Your task to perform on an android device: Go to privacy settings Image 0: 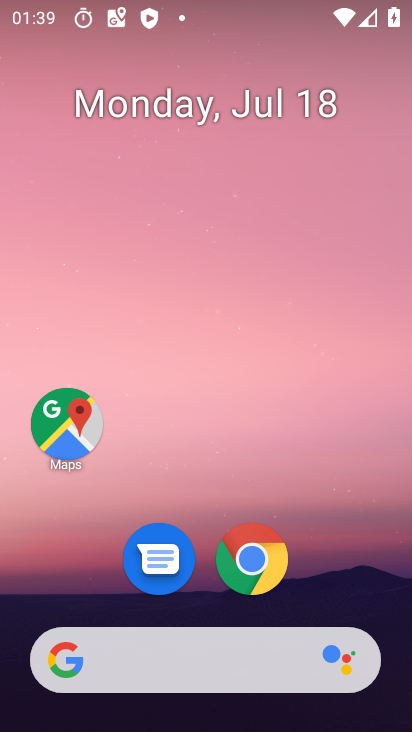
Step 0: drag from (83, 513) to (138, 43)
Your task to perform on an android device: Go to privacy settings Image 1: 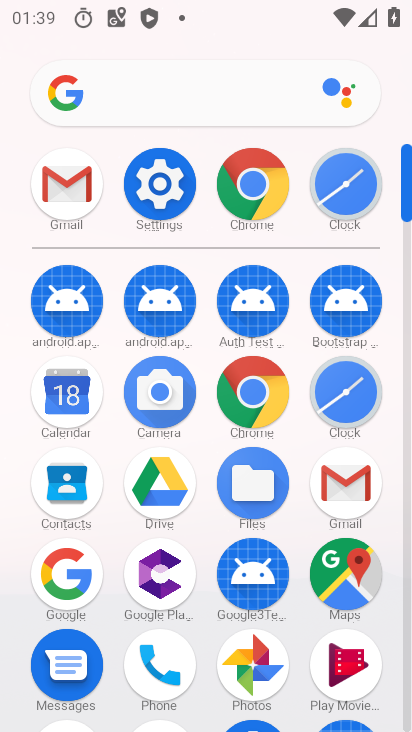
Step 1: click (172, 196)
Your task to perform on an android device: Go to privacy settings Image 2: 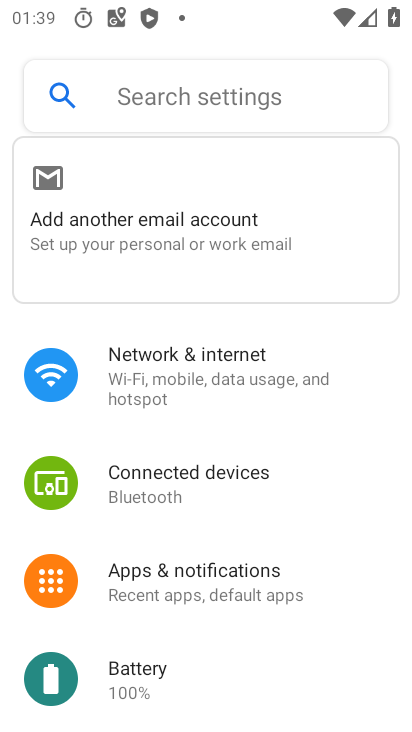
Step 2: drag from (164, 666) to (266, 50)
Your task to perform on an android device: Go to privacy settings Image 3: 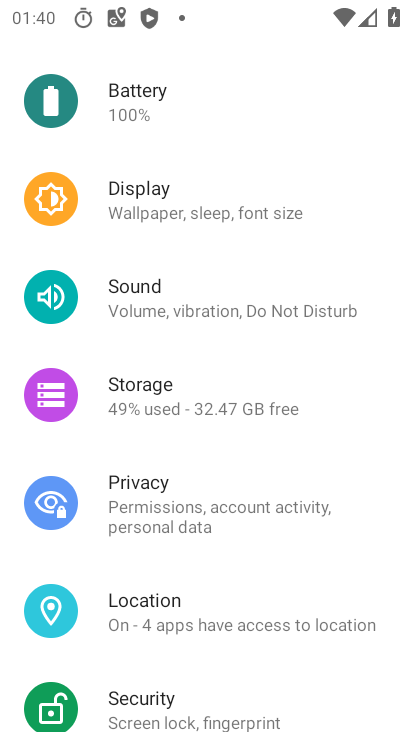
Step 3: click (171, 467)
Your task to perform on an android device: Go to privacy settings Image 4: 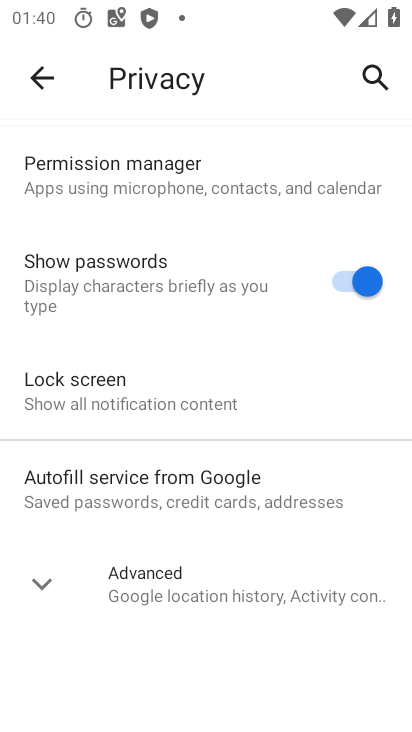
Step 4: task complete